Your task to perform on an android device: add a label to a message in the gmail app Image 0: 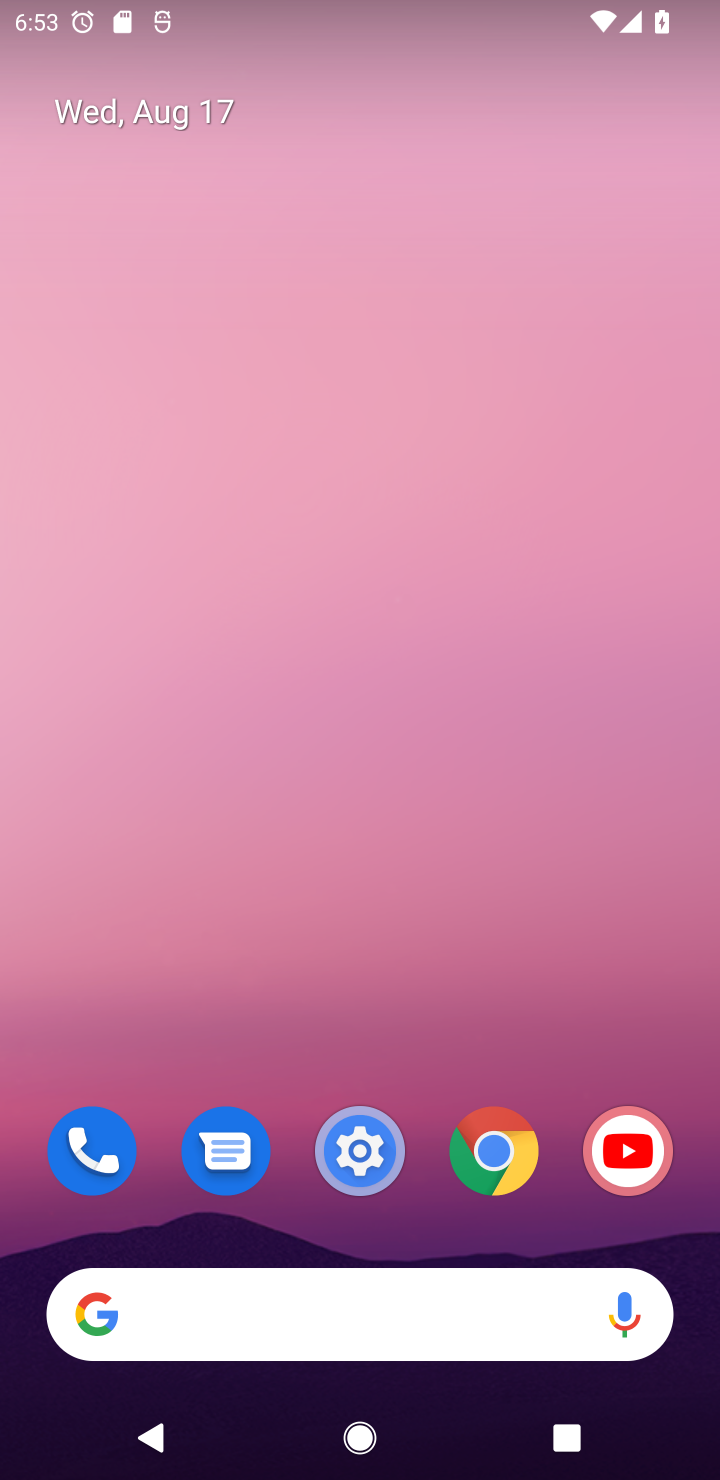
Step 0: drag from (456, 1216) to (540, 86)
Your task to perform on an android device: add a label to a message in the gmail app Image 1: 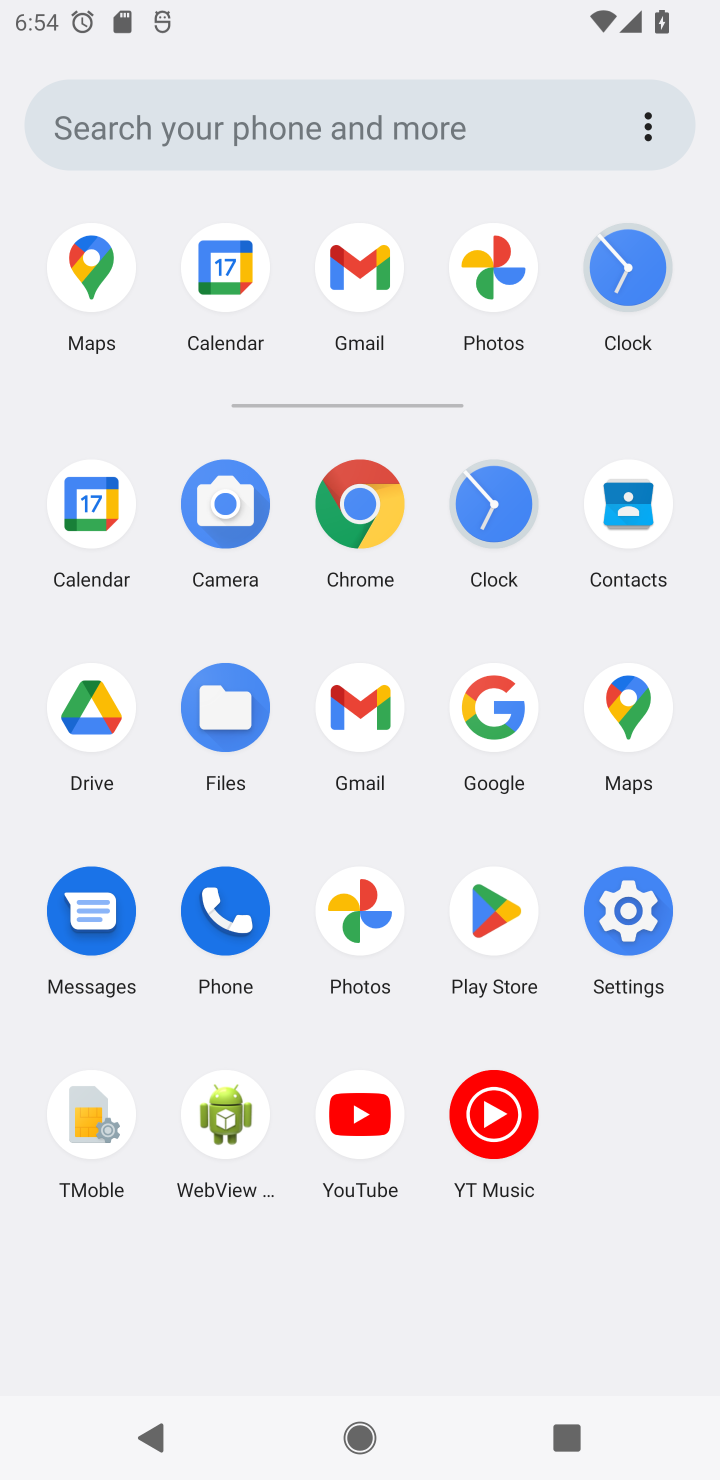
Step 1: click (361, 766)
Your task to perform on an android device: add a label to a message in the gmail app Image 2: 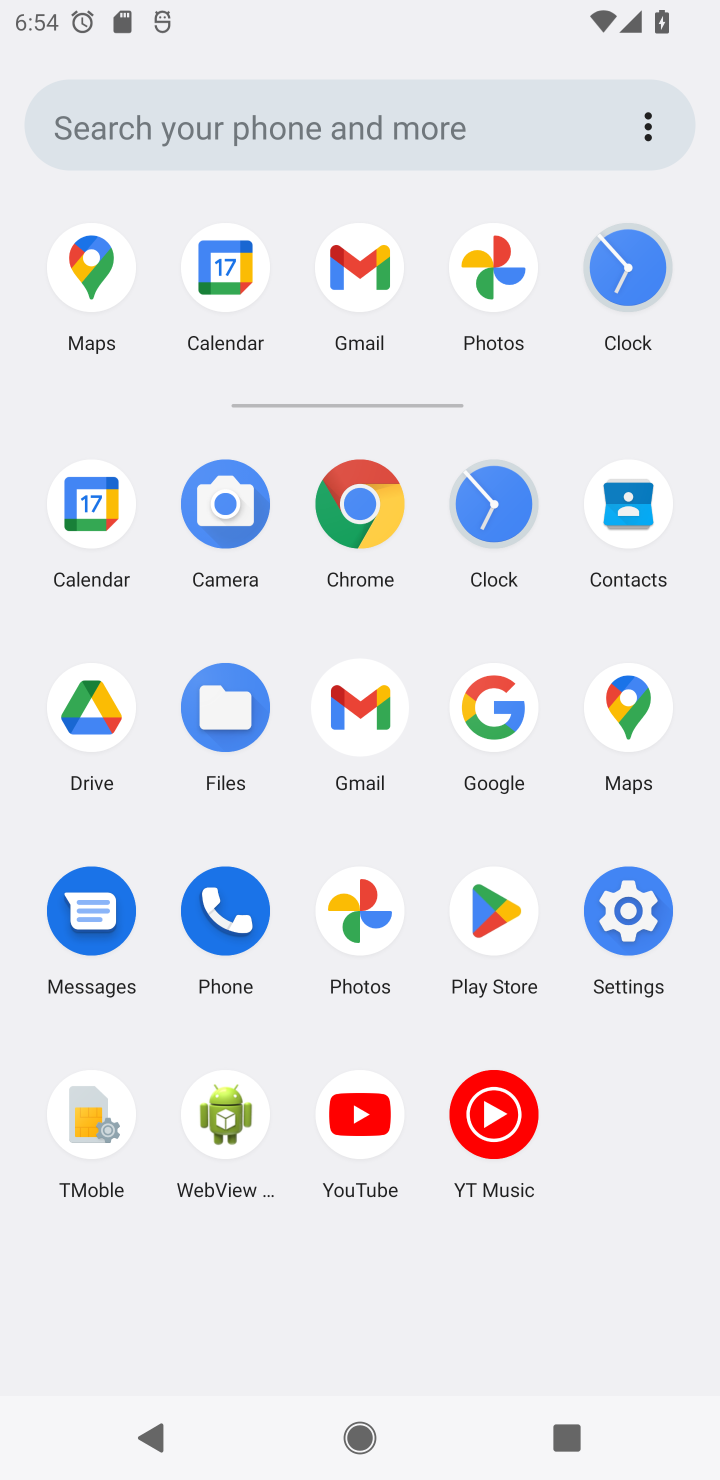
Step 2: task complete